Your task to perform on an android device: toggle sleep mode Image 0: 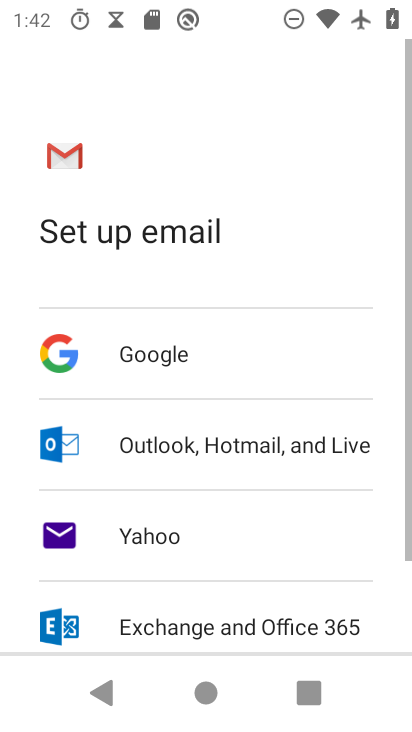
Step 0: press home button
Your task to perform on an android device: toggle sleep mode Image 1: 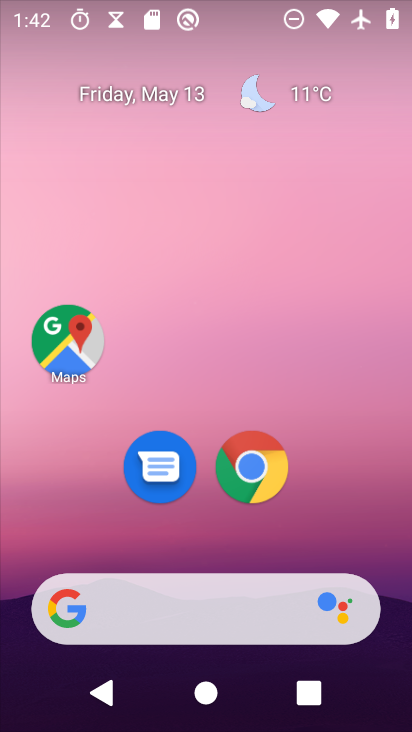
Step 1: drag from (313, 507) to (226, 79)
Your task to perform on an android device: toggle sleep mode Image 2: 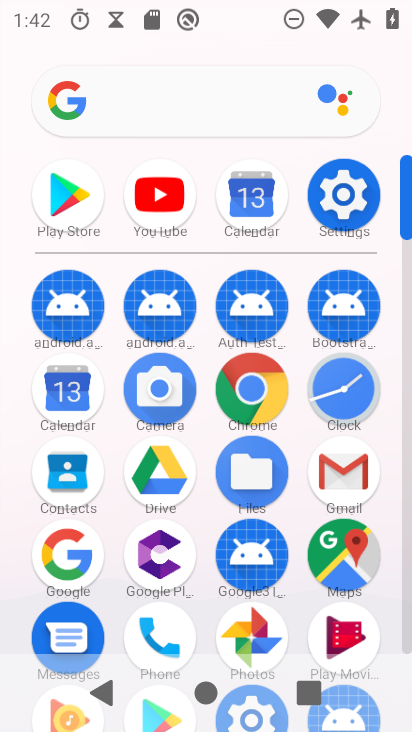
Step 2: click (342, 217)
Your task to perform on an android device: toggle sleep mode Image 3: 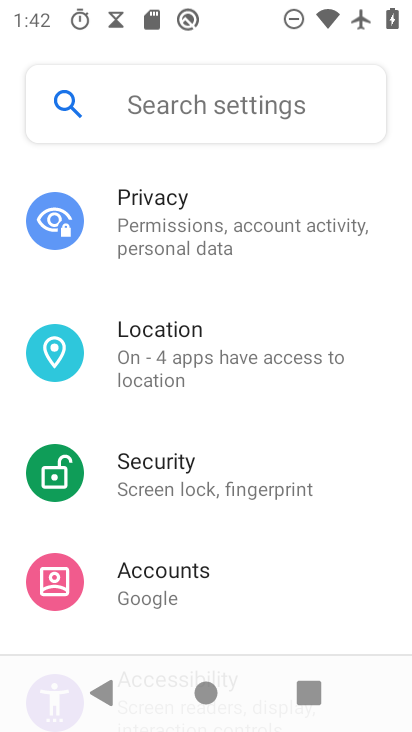
Step 3: drag from (266, 543) to (213, 321)
Your task to perform on an android device: toggle sleep mode Image 4: 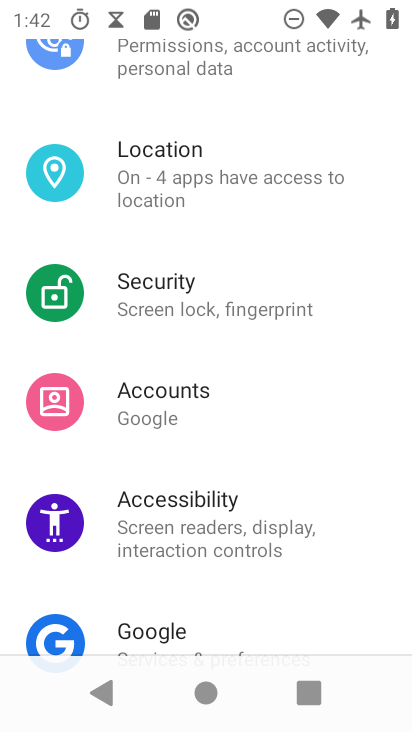
Step 4: drag from (228, 499) to (235, 156)
Your task to perform on an android device: toggle sleep mode Image 5: 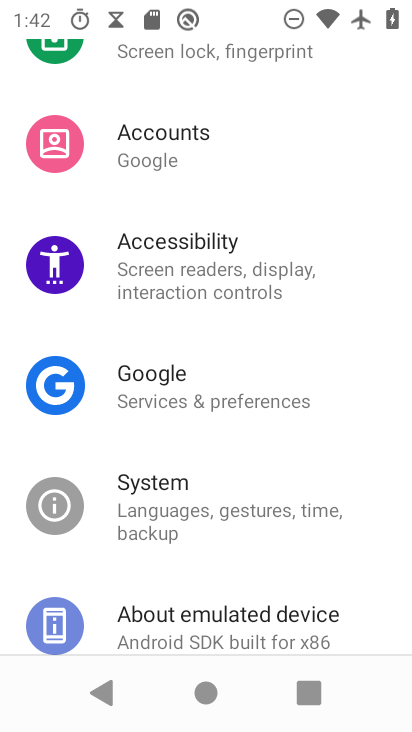
Step 5: drag from (223, 176) to (202, 624)
Your task to perform on an android device: toggle sleep mode Image 6: 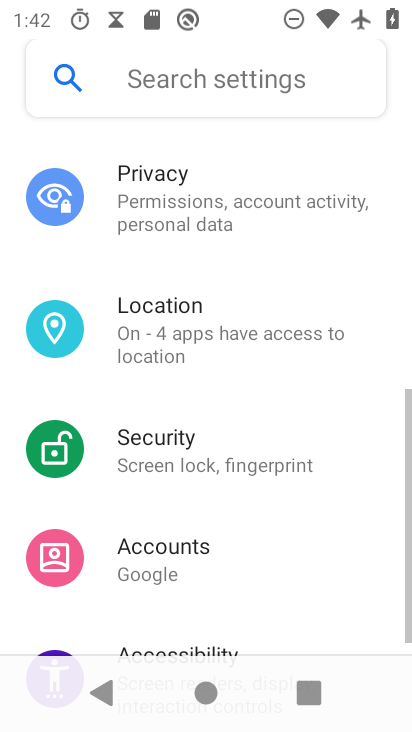
Step 6: drag from (228, 224) to (241, 572)
Your task to perform on an android device: toggle sleep mode Image 7: 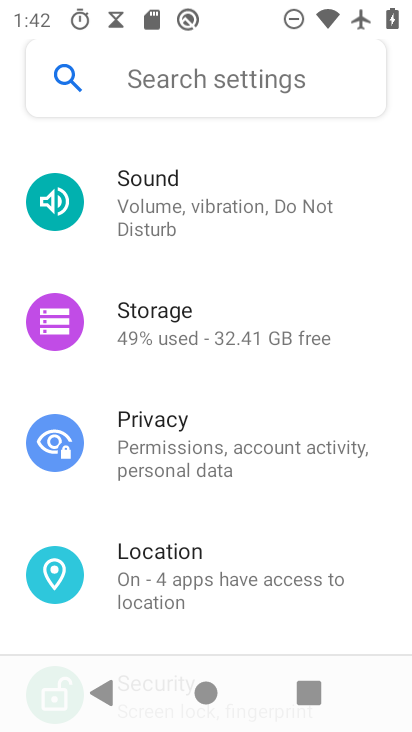
Step 7: drag from (224, 274) to (248, 505)
Your task to perform on an android device: toggle sleep mode Image 8: 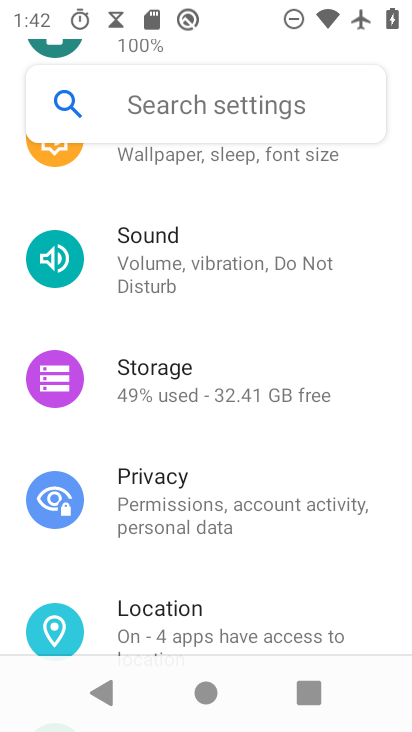
Step 8: drag from (216, 269) to (221, 536)
Your task to perform on an android device: toggle sleep mode Image 9: 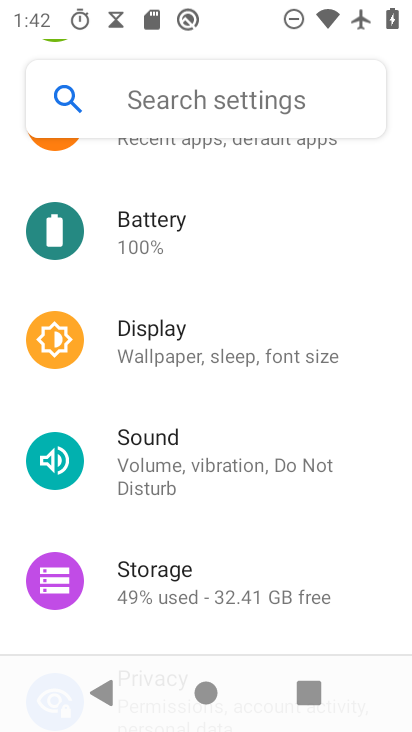
Step 9: click (196, 314)
Your task to perform on an android device: toggle sleep mode Image 10: 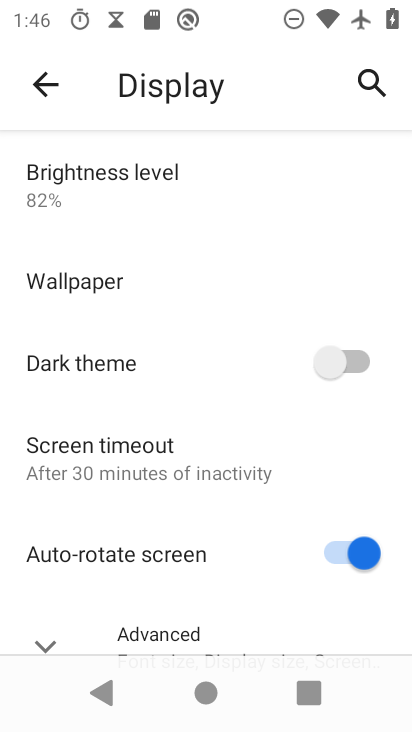
Step 10: task complete